Your task to perform on an android device: show emergency info Image 0: 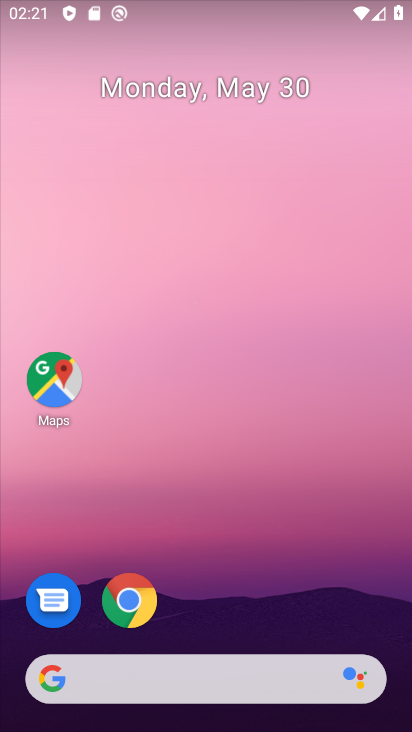
Step 0: drag from (245, 595) to (265, 137)
Your task to perform on an android device: show emergency info Image 1: 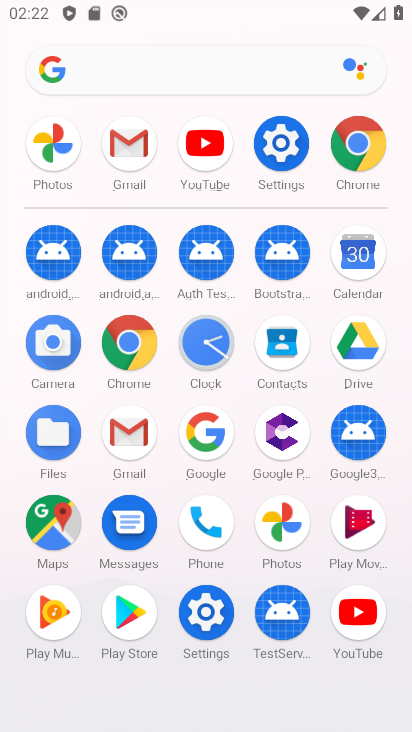
Step 1: click (280, 157)
Your task to perform on an android device: show emergency info Image 2: 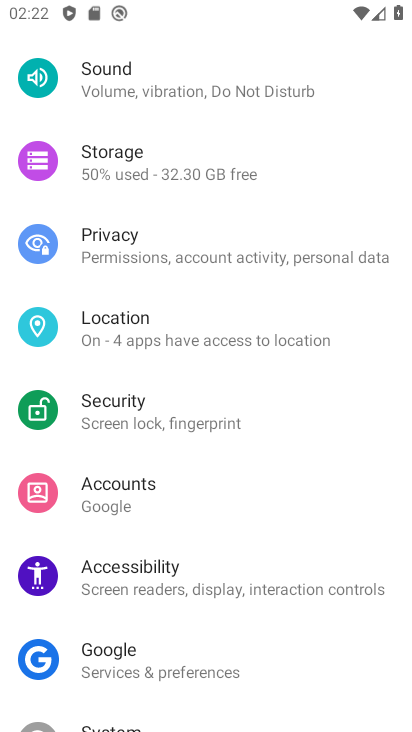
Step 2: drag from (194, 673) to (241, 326)
Your task to perform on an android device: show emergency info Image 3: 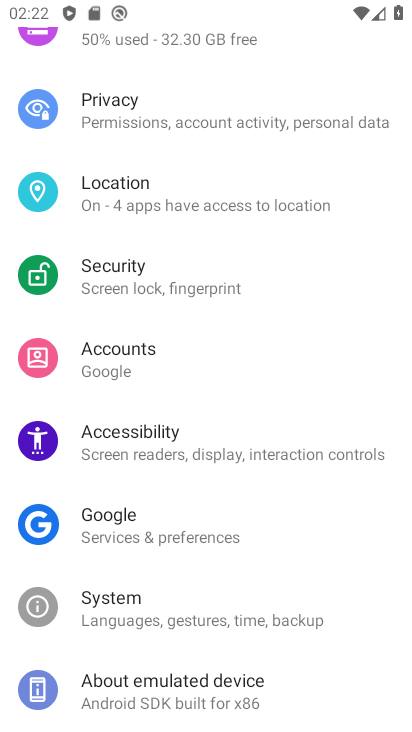
Step 3: drag from (236, 635) to (267, 196)
Your task to perform on an android device: show emergency info Image 4: 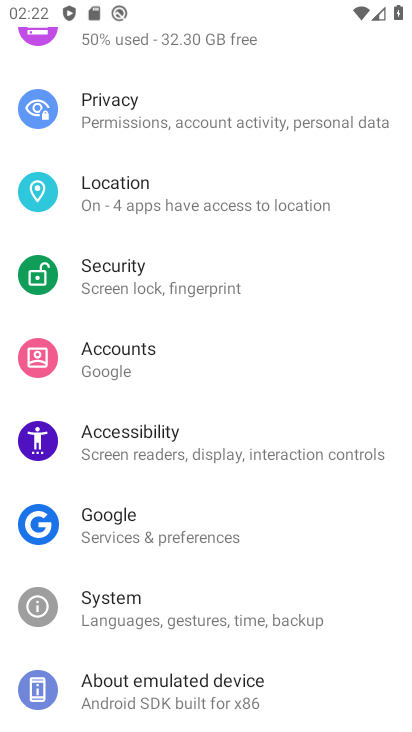
Step 4: drag from (232, 636) to (271, 178)
Your task to perform on an android device: show emergency info Image 5: 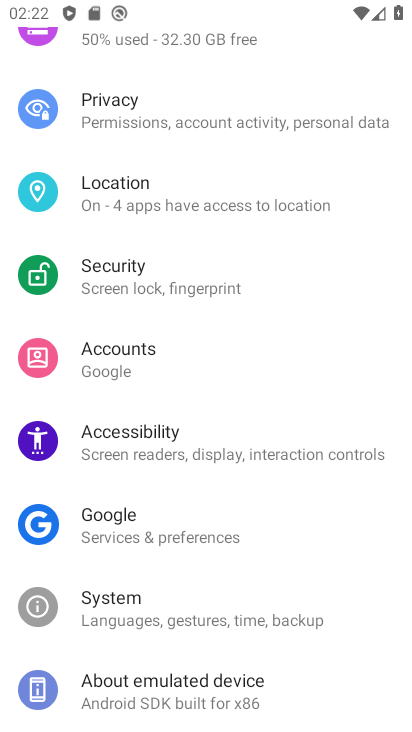
Step 5: click (144, 698)
Your task to perform on an android device: show emergency info Image 6: 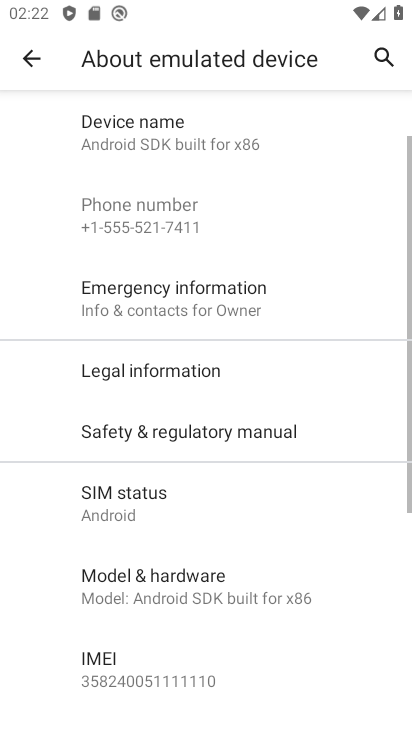
Step 6: click (221, 293)
Your task to perform on an android device: show emergency info Image 7: 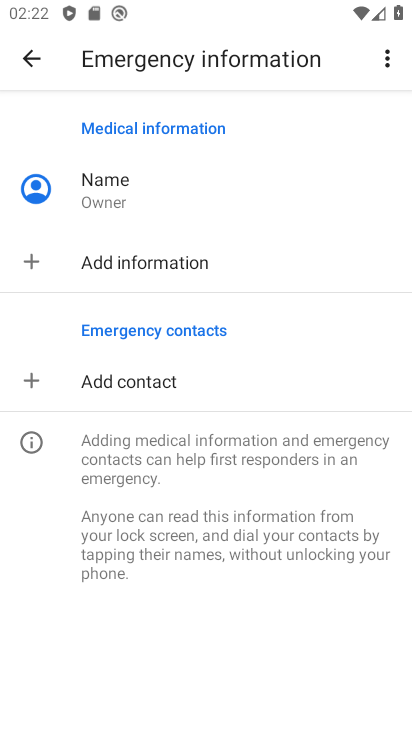
Step 7: task complete